Your task to perform on an android device: check out phone information Image 0: 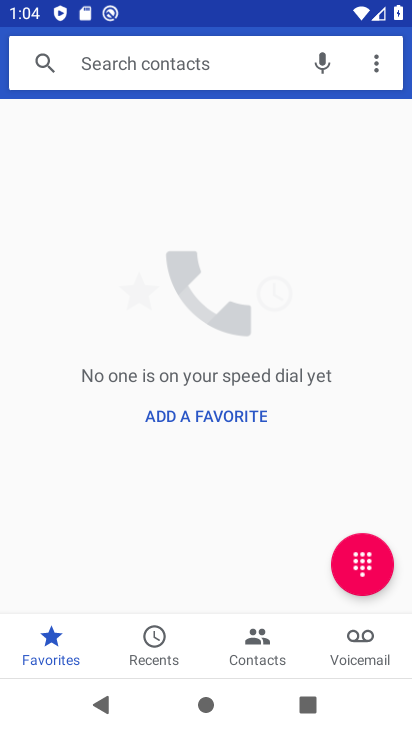
Step 0: press home button
Your task to perform on an android device: check out phone information Image 1: 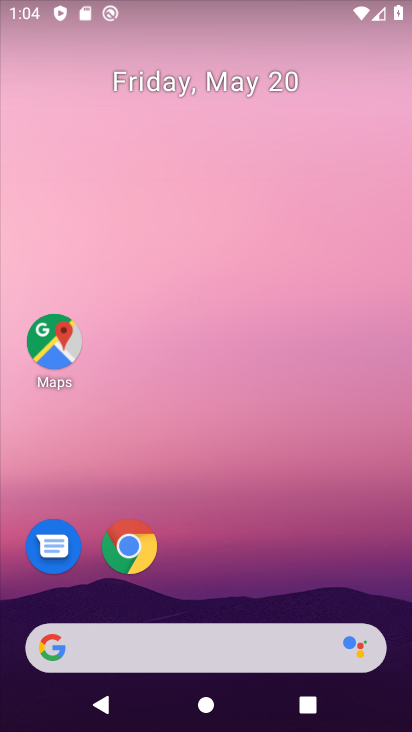
Step 1: drag from (61, 535) to (265, 152)
Your task to perform on an android device: check out phone information Image 2: 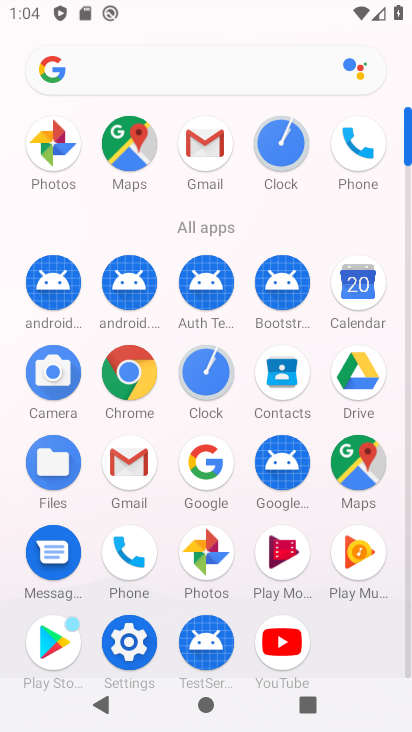
Step 2: click (115, 647)
Your task to perform on an android device: check out phone information Image 3: 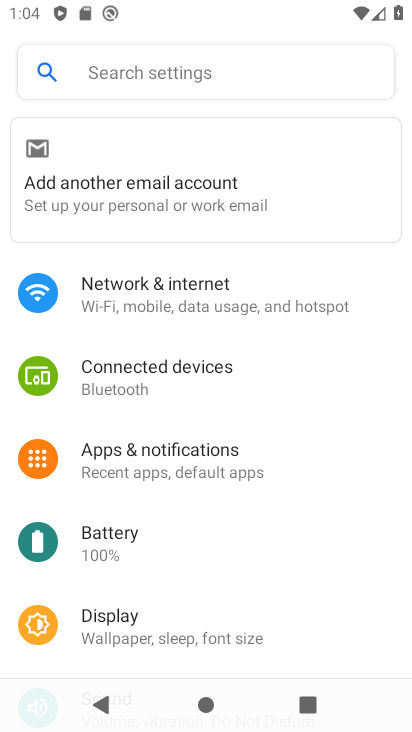
Step 3: press home button
Your task to perform on an android device: check out phone information Image 4: 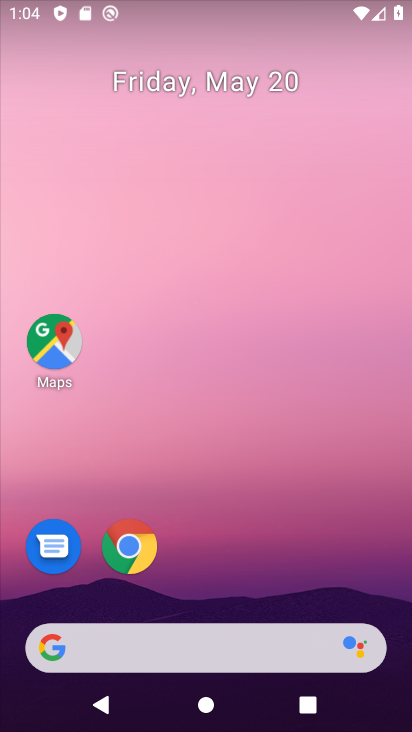
Step 4: drag from (9, 654) to (261, 185)
Your task to perform on an android device: check out phone information Image 5: 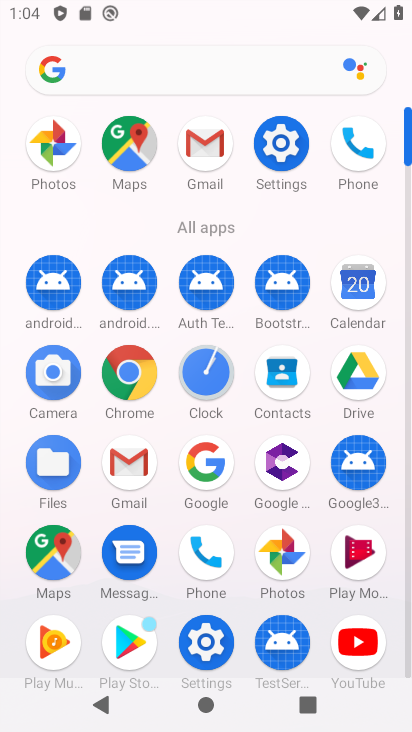
Step 5: click (153, 649)
Your task to perform on an android device: check out phone information Image 6: 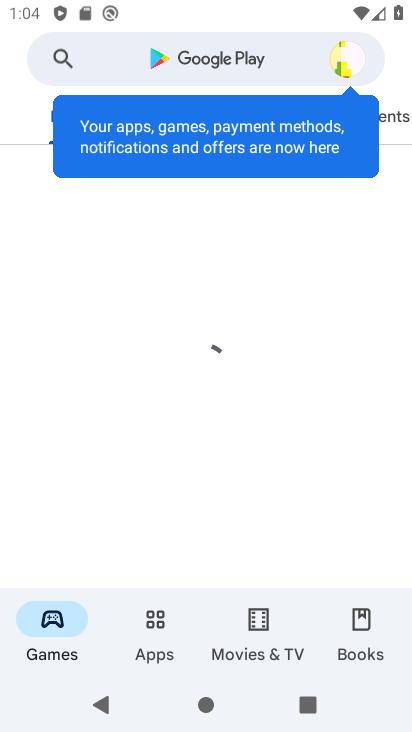
Step 6: press home button
Your task to perform on an android device: check out phone information Image 7: 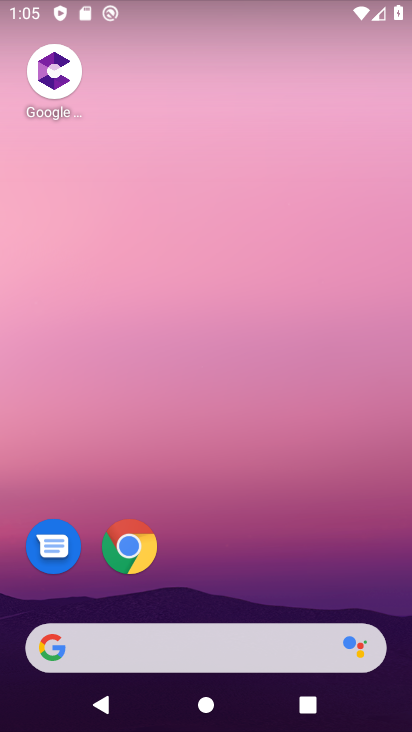
Step 7: drag from (0, 725) to (236, 190)
Your task to perform on an android device: check out phone information Image 8: 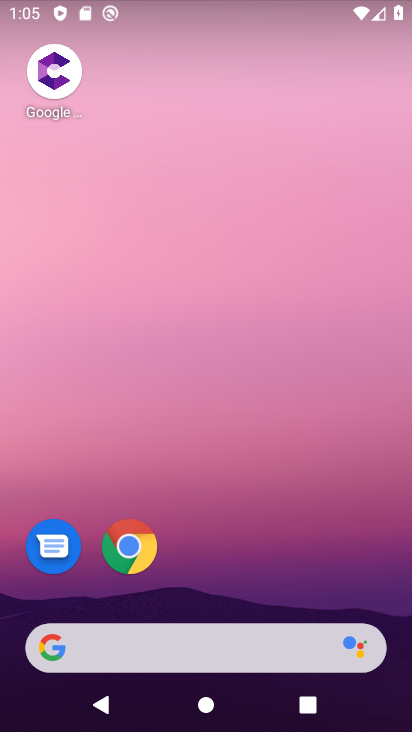
Step 8: drag from (19, 664) to (237, 88)
Your task to perform on an android device: check out phone information Image 9: 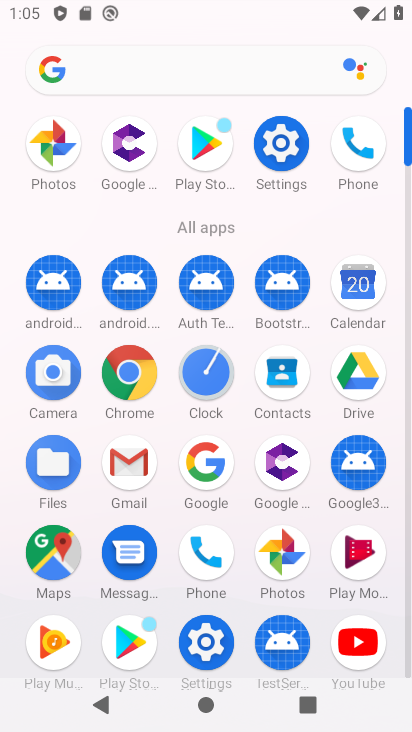
Step 9: click (224, 558)
Your task to perform on an android device: check out phone information Image 10: 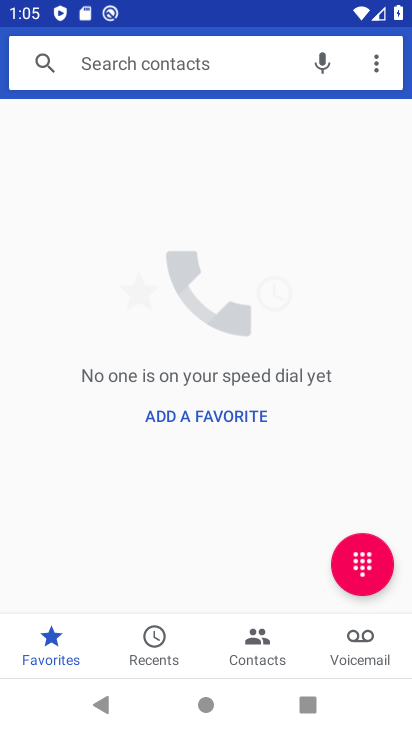
Step 10: click (372, 70)
Your task to perform on an android device: check out phone information Image 11: 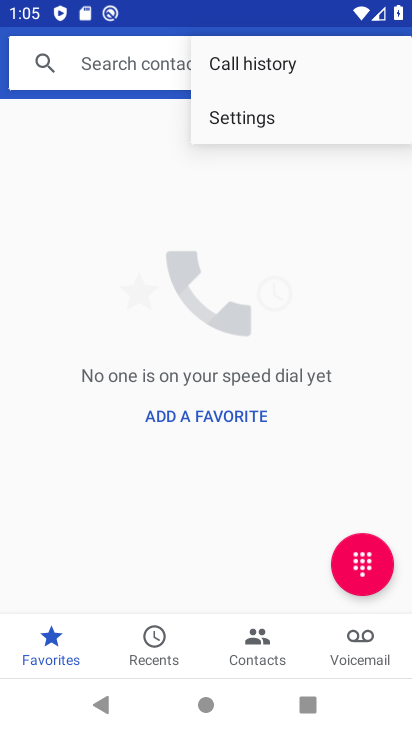
Step 11: click (281, 115)
Your task to perform on an android device: check out phone information Image 12: 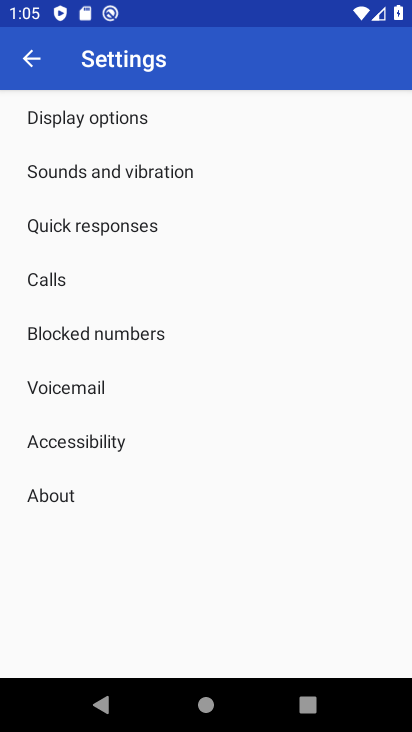
Step 12: task complete